Your task to perform on an android device: Search for Italian restaurants on Maps Image 0: 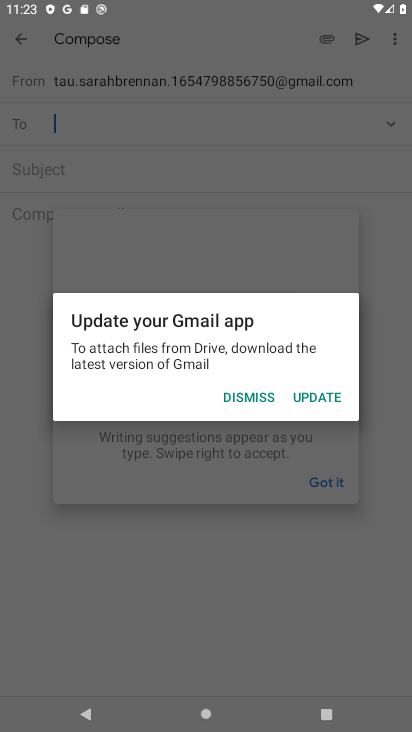
Step 0: press home button
Your task to perform on an android device: Search for Italian restaurants on Maps Image 1: 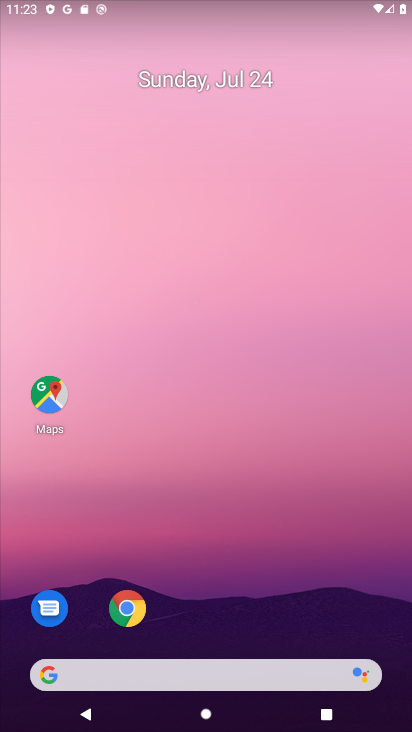
Step 1: drag from (386, 597) to (97, 20)
Your task to perform on an android device: Search for Italian restaurants on Maps Image 2: 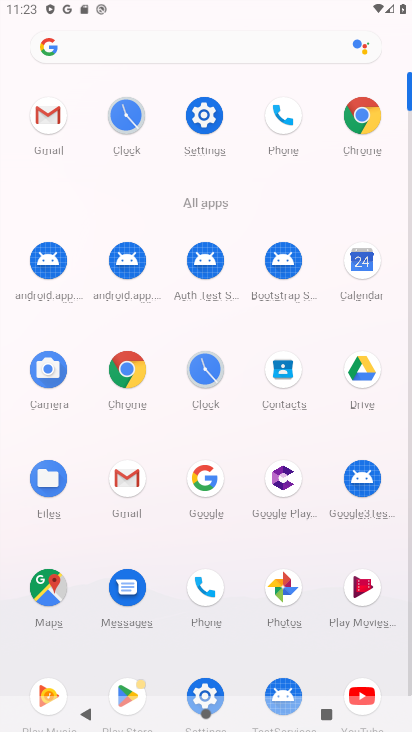
Step 2: click (53, 591)
Your task to perform on an android device: Search for Italian restaurants on Maps Image 3: 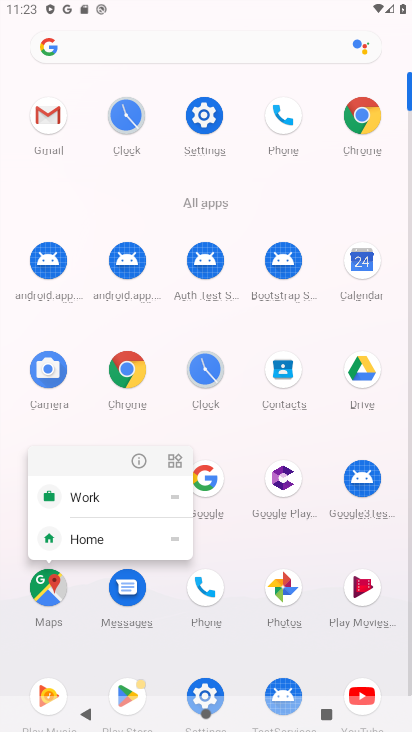
Step 3: click (39, 571)
Your task to perform on an android device: Search for Italian restaurants on Maps Image 4: 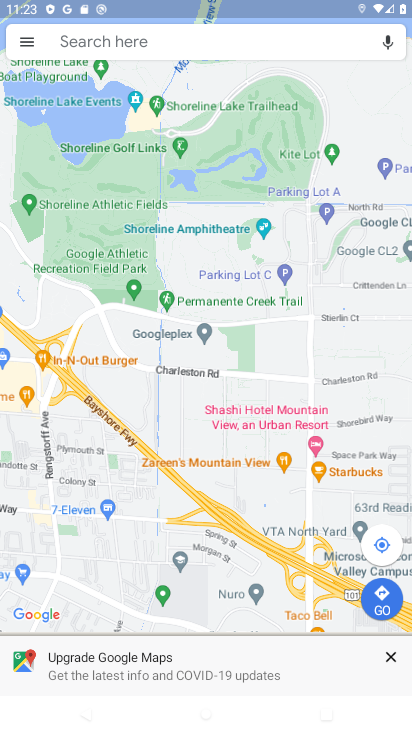
Step 4: click (218, 42)
Your task to perform on an android device: Search for Italian restaurants on Maps Image 5: 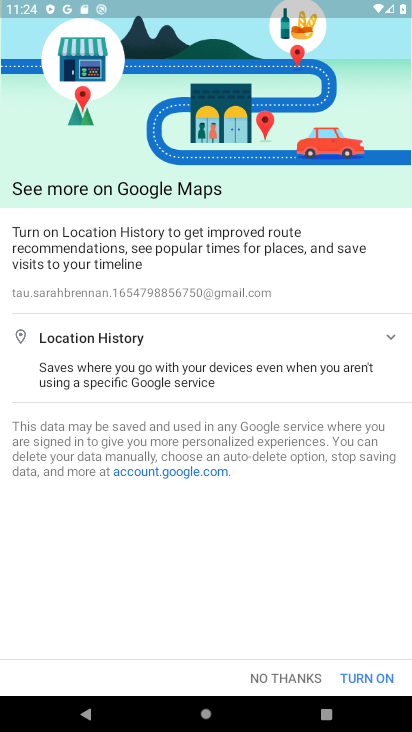
Step 5: click (315, 683)
Your task to perform on an android device: Search for Italian restaurants on Maps Image 6: 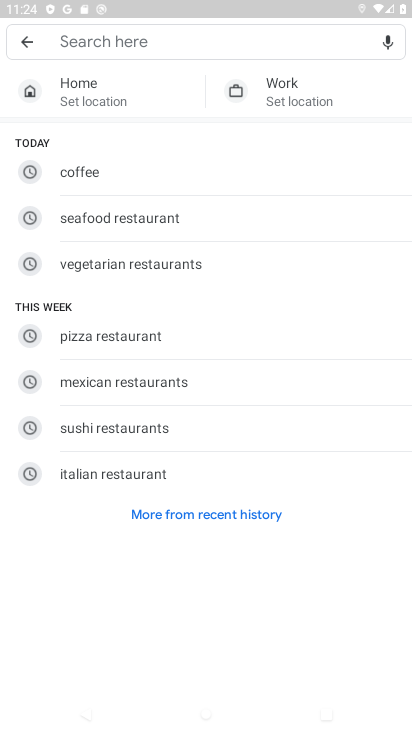
Step 6: click (159, 480)
Your task to perform on an android device: Search for Italian restaurants on Maps Image 7: 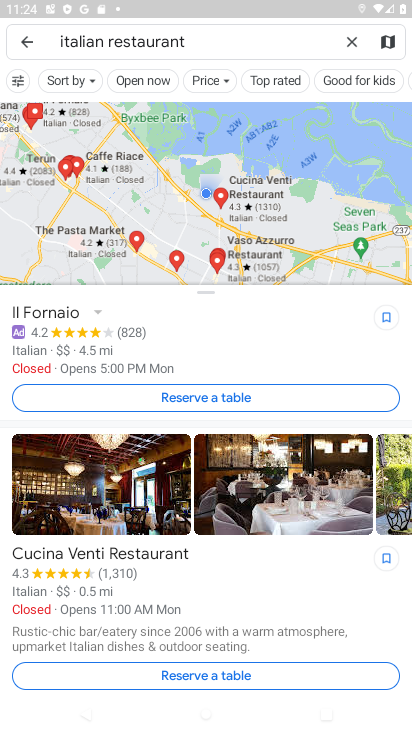
Step 7: task complete